Your task to perform on an android device: set the timer Image 0: 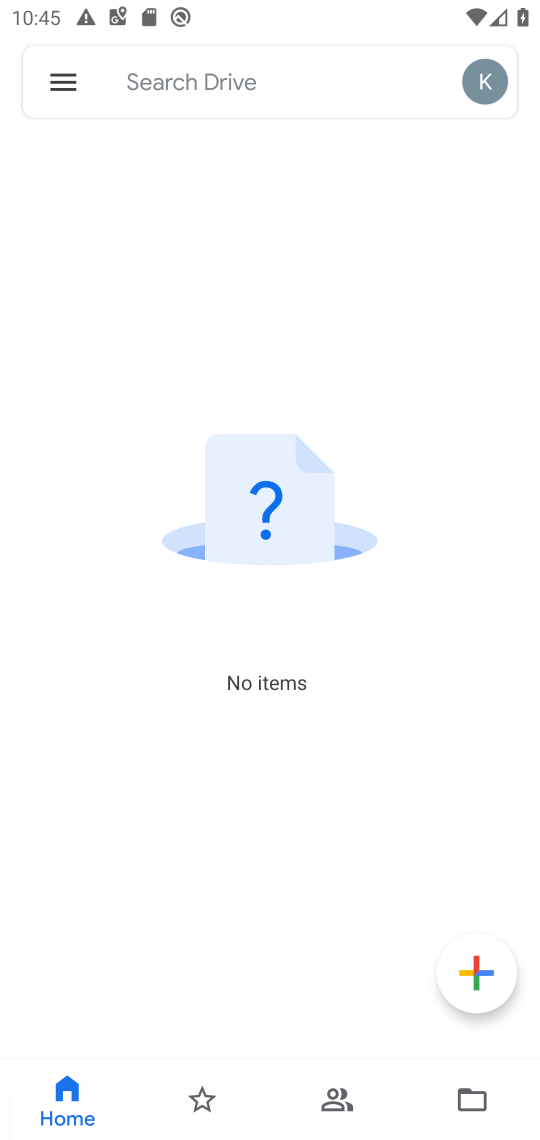
Step 0: press back button
Your task to perform on an android device: set the timer Image 1: 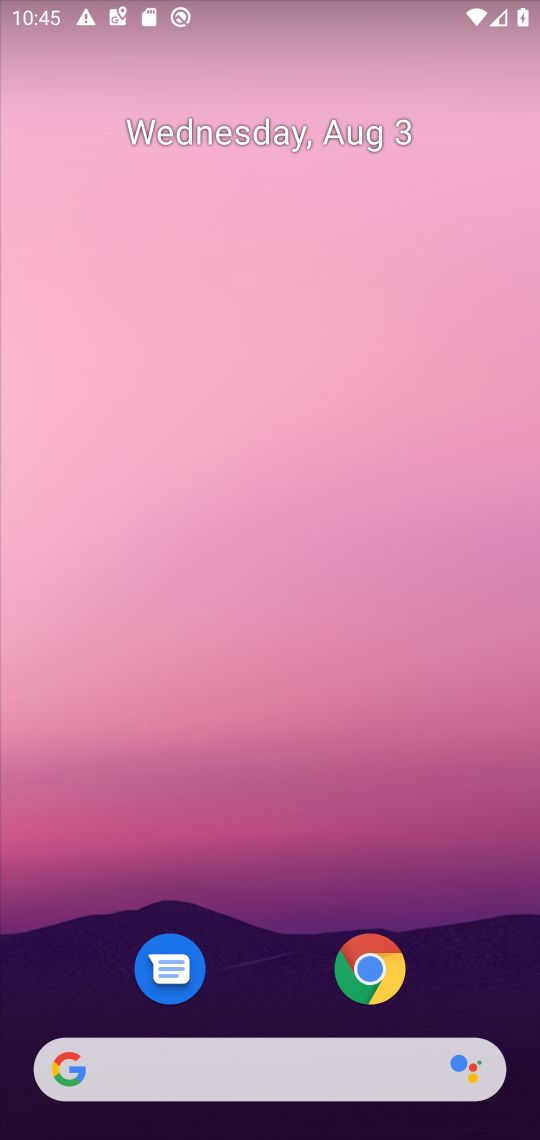
Step 1: drag from (326, 1001) to (170, 2)
Your task to perform on an android device: set the timer Image 2: 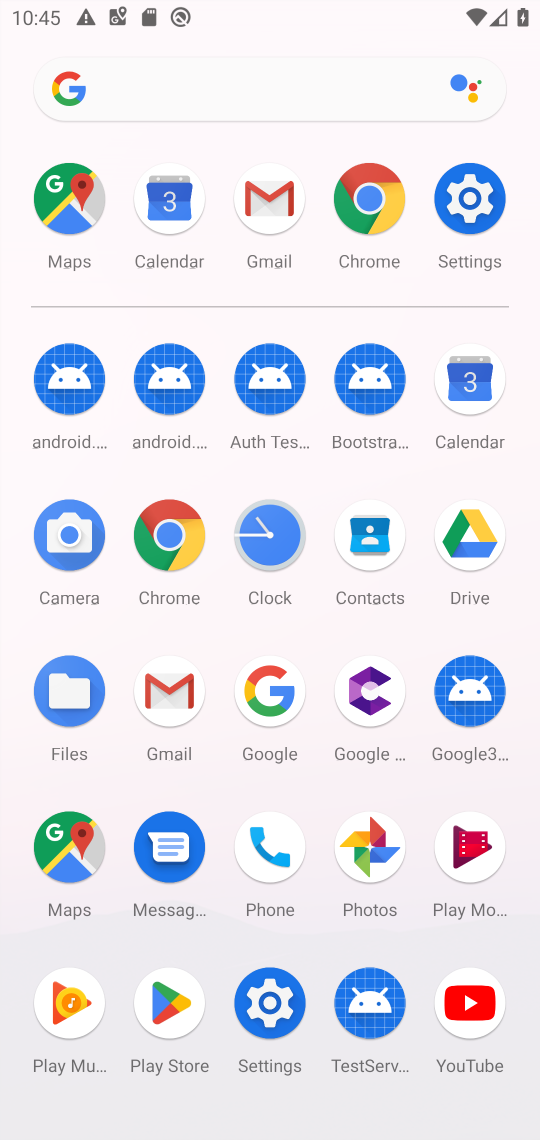
Step 2: click (244, 568)
Your task to perform on an android device: set the timer Image 3: 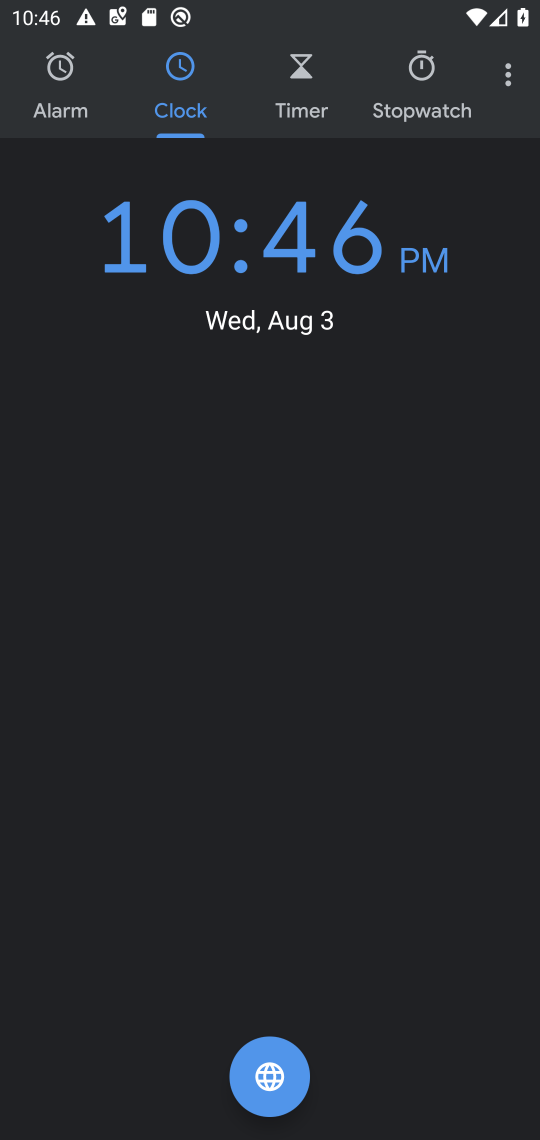
Step 3: click (306, 86)
Your task to perform on an android device: set the timer Image 4: 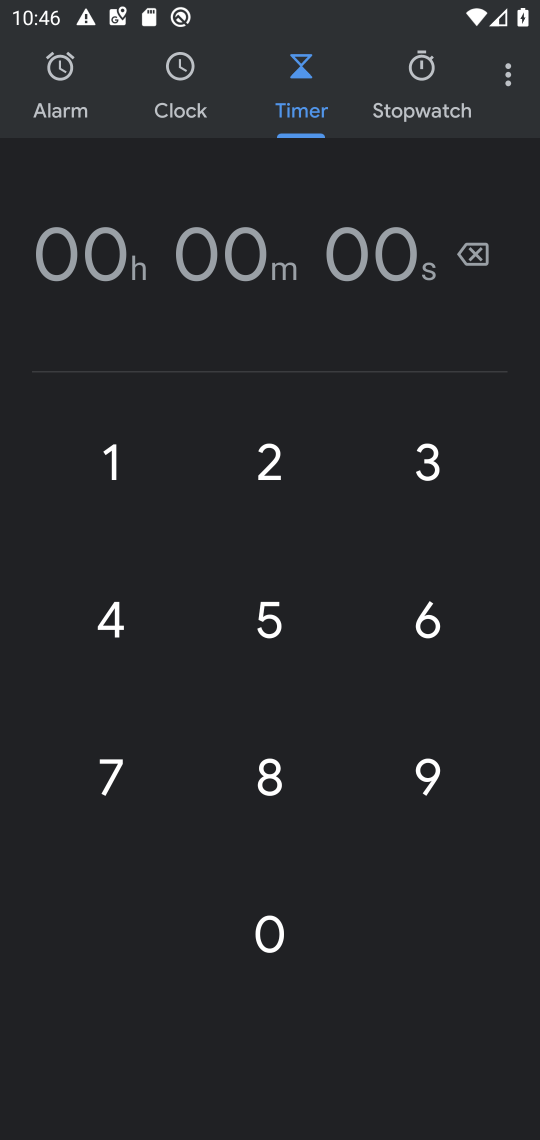
Step 4: task complete